Your task to perform on an android device: add a contact Image 0: 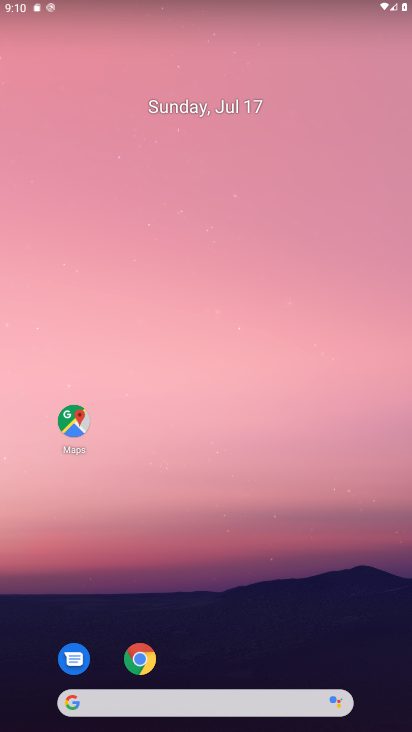
Step 0: drag from (202, 707) to (58, 7)
Your task to perform on an android device: add a contact Image 1: 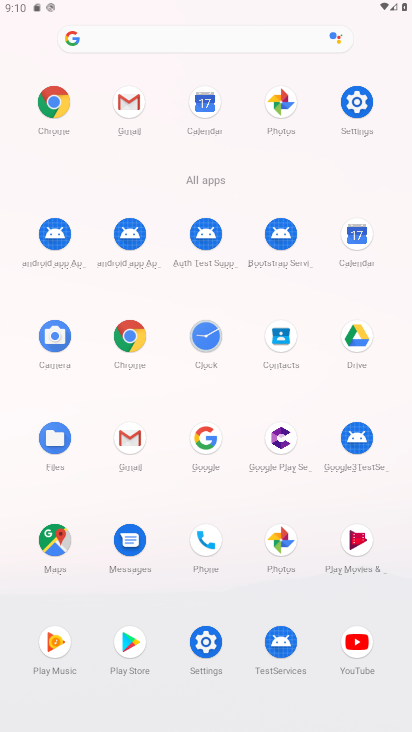
Step 1: click (280, 336)
Your task to perform on an android device: add a contact Image 2: 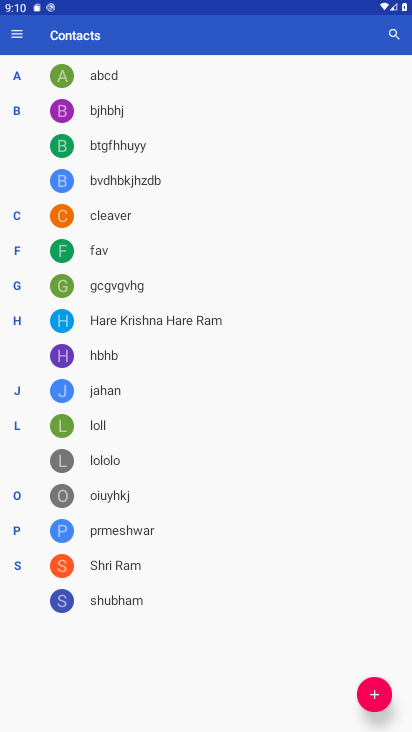
Step 2: click (377, 700)
Your task to perform on an android device: add a contact Image 3: 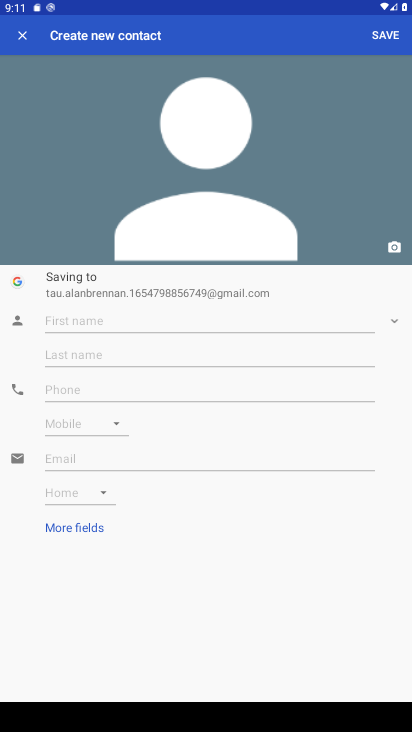
Step 3: type "sdjfksd"
Your task to perform on an android device: add a contact Image 4: 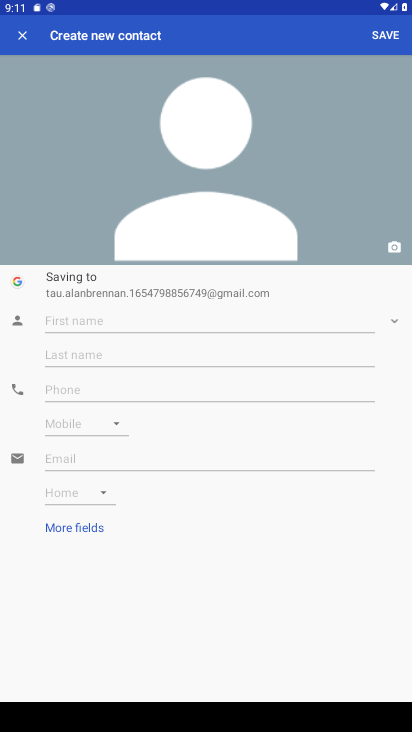
Step 4: click (149, 392)
Your task to perform on an android device: add a contact Image 5: 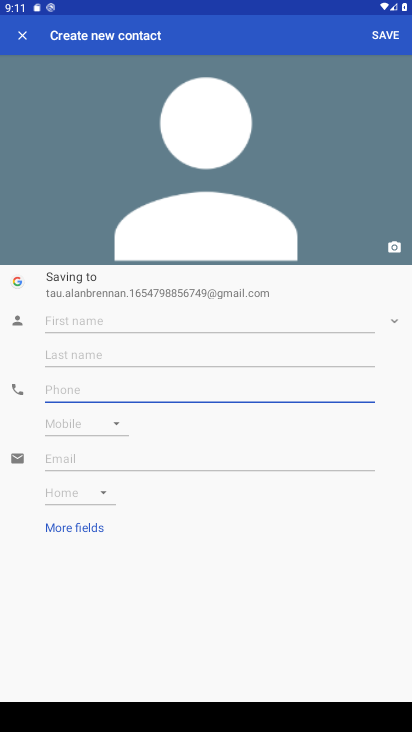
Step 5: click (238, 325)
Your task to perform on an android device: add a contact Image 6: 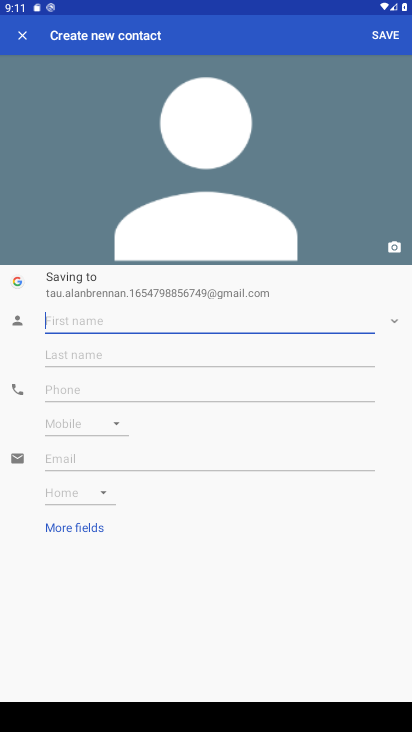
Step 6: type "sdkfsd"
Your task to perform on an android device: add a contact Image 7: 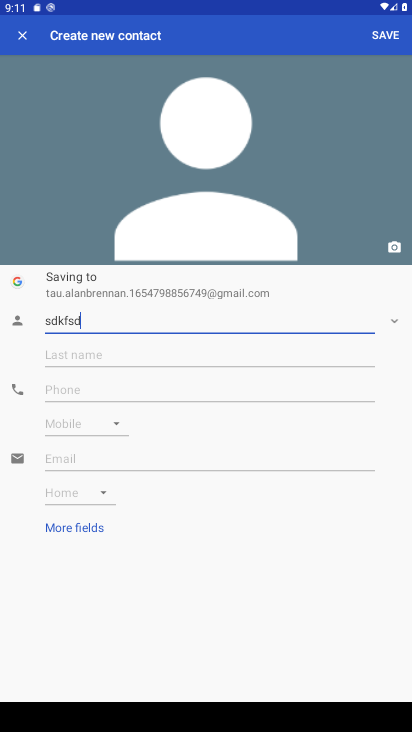
Step 7: click (165, 390)
Your task to perform on an android device: add a contact Image 8: 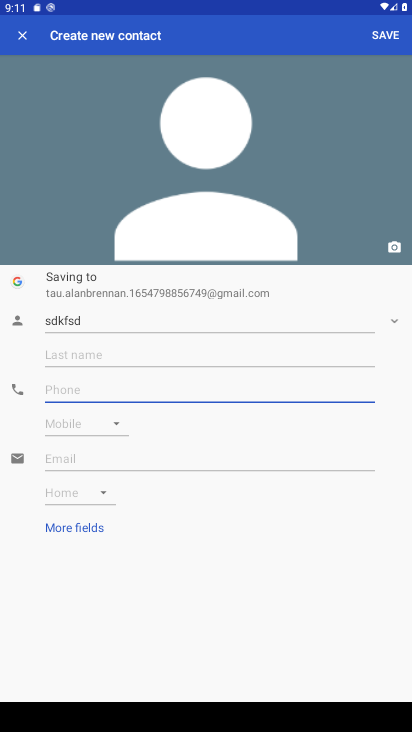
Step 8: type "23423423"
Your task to perform on an android device: add a contact Image 9: 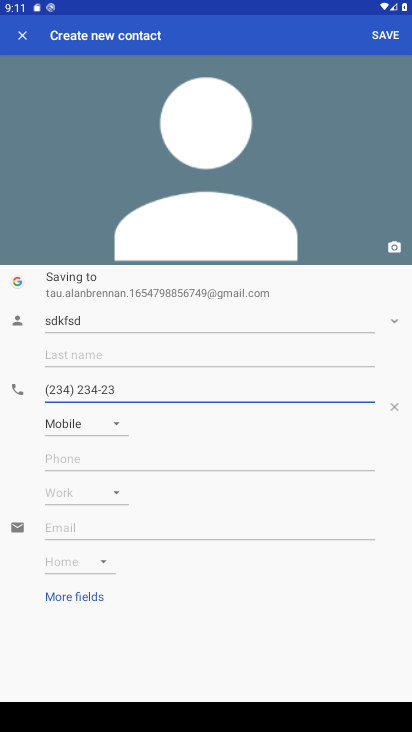
Step 9: click (378, 38)
Your task to perform on an android device: add a contact Image 10: 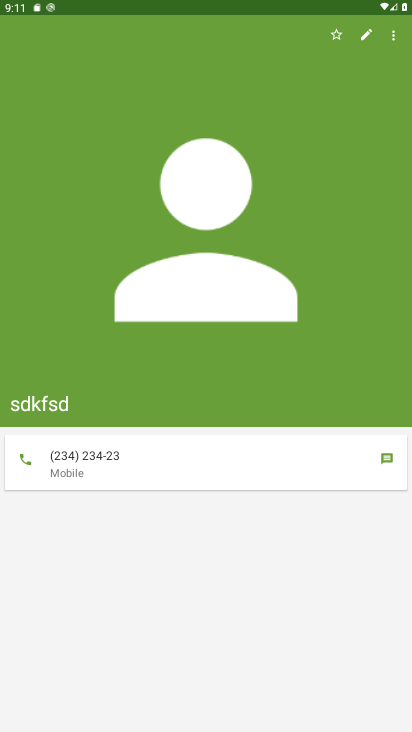
Step 10: task complete